Your task to perform on an android device: change the clock style Image 0: 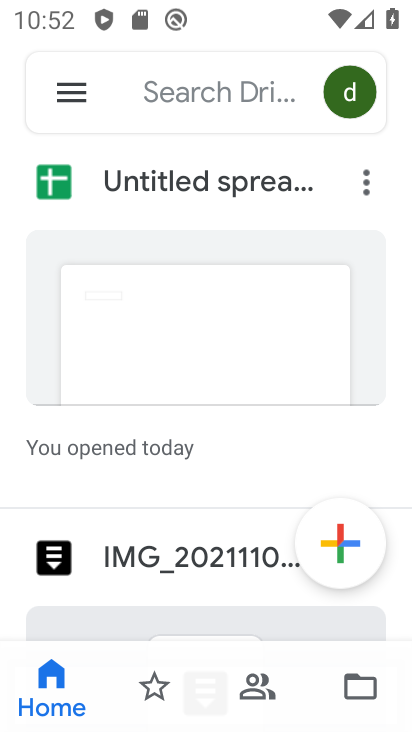
Step 0: press home button
Your task to perform on an android device: change the clock style Image 1: 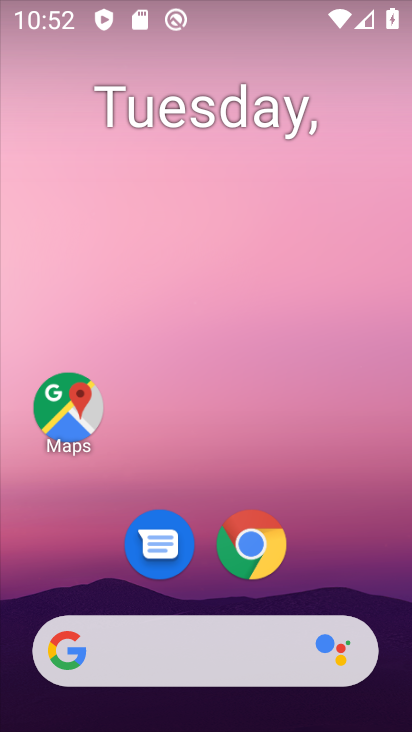
Step 1: drag from (383, 637) to (329, 98)
Your task to perform on an android device: change the clock style Image 2: 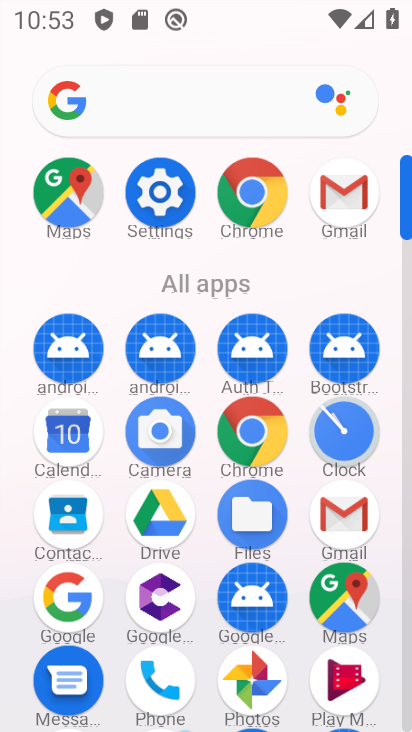
Step 2: click (344, 421)
Your task to perform on an android device: change the clock style Image 3: 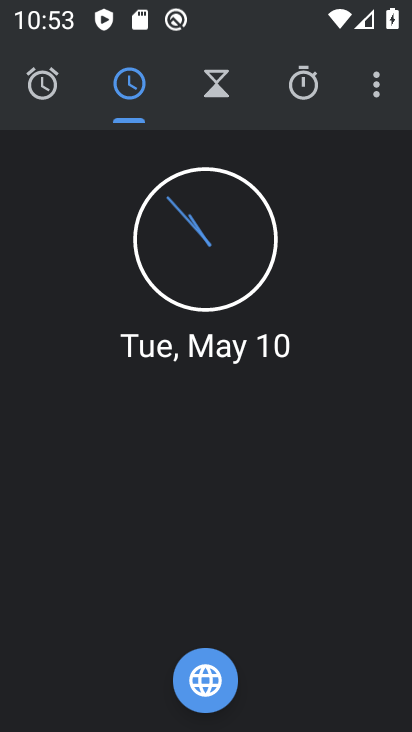
Step 3: click (388, 92)
Your task to perform on an android device: change the clock style Image 4: 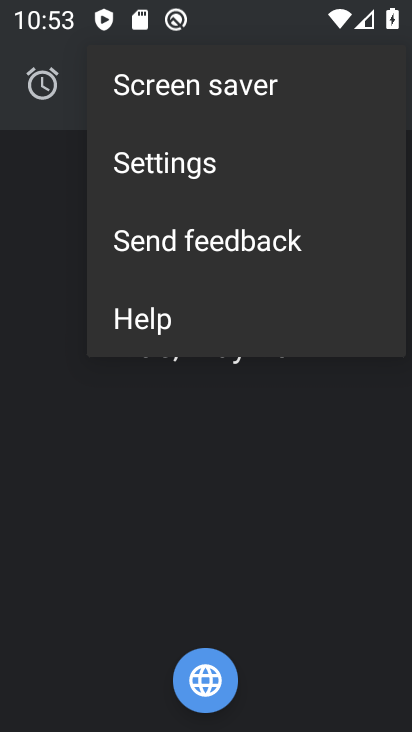
Step 4: click (263, 156)
Your task to perform on an android device: change the clock style Image 5: 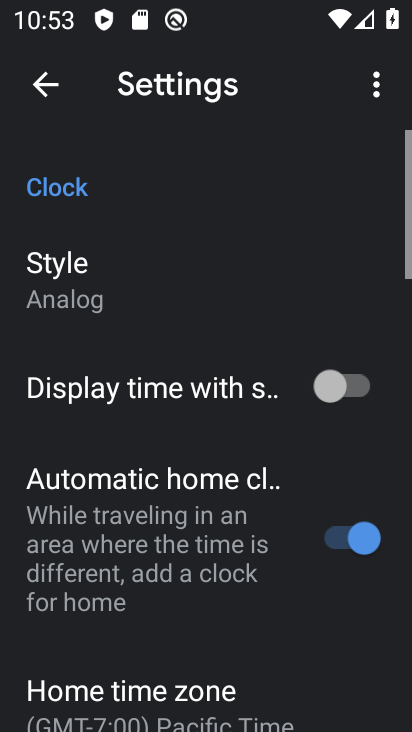
Step 5: click (52, 270)
Your task to perform on an android device: change the clock style Image 6: 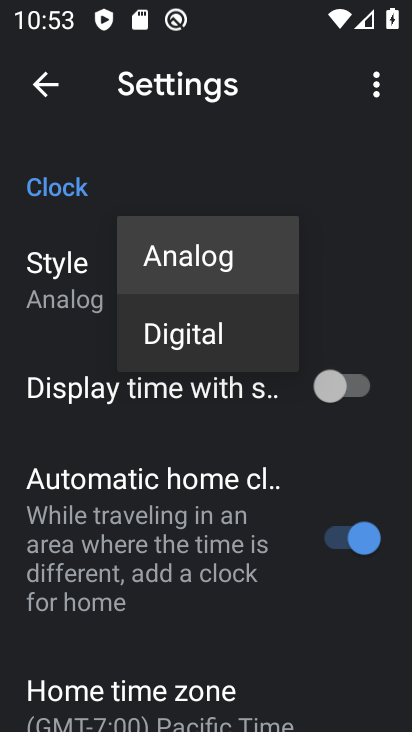
Step 6: click (169, 284)
Your task to perform on an android device: change the clock style Image 7: 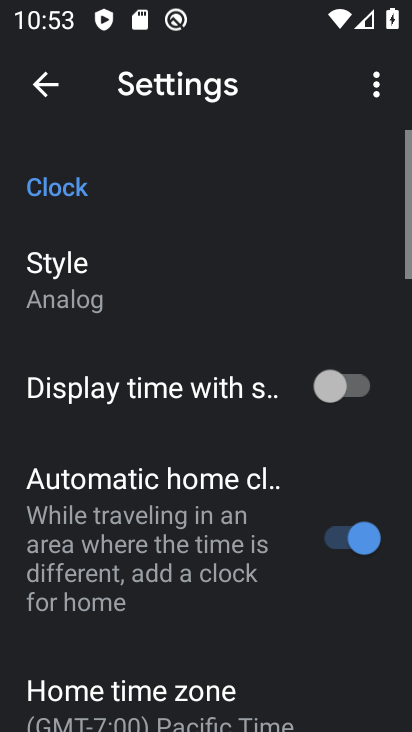
Step 7: click (154, 273)
Your task to perform on an android device: change the clock style Image 8: 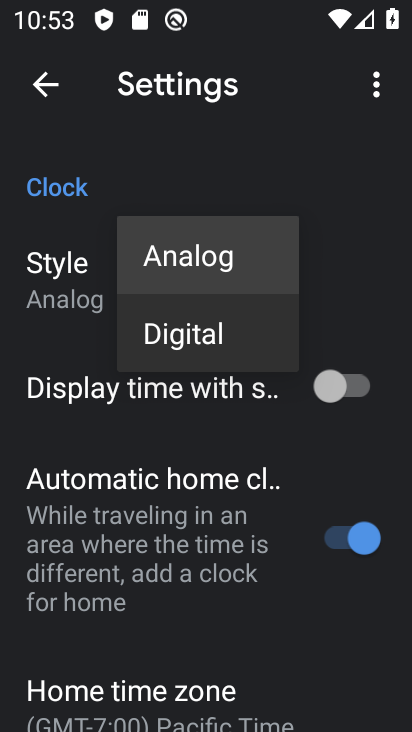
Step 8: click (180, 323)
Your task to perform on an android device: change the clock style Image 9: 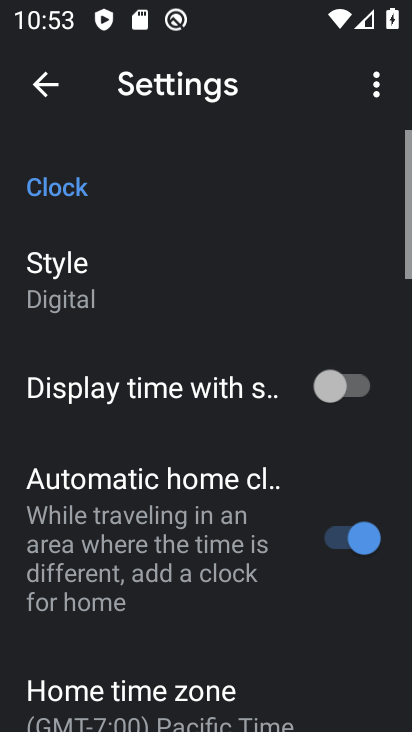
Step 9: task complete